Your task to perform on an android device: Go to Yahoo.com Image 0: 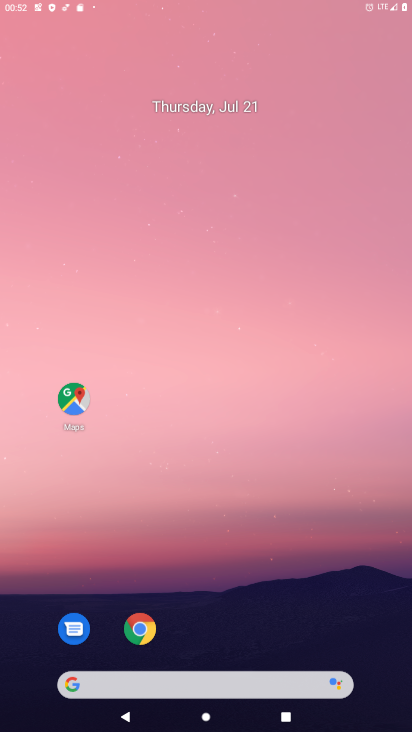
Step 0: click (263, 132)
Your task to perform on an android device: Go to Yahoo.com Image 1: 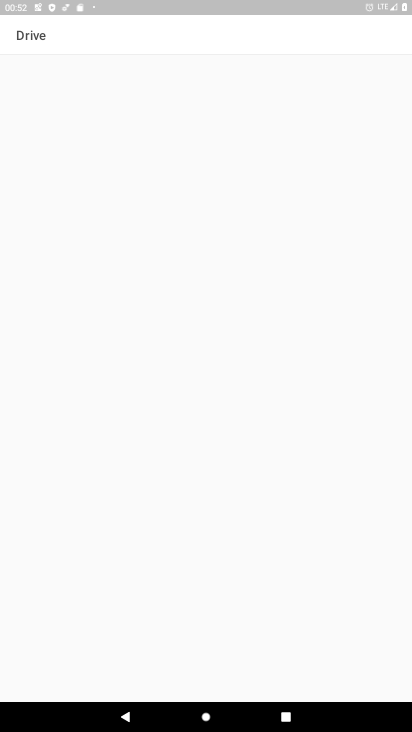
Step 1: press home button
Your task to perform on an android device: Go to Yahoo.com Image 2: 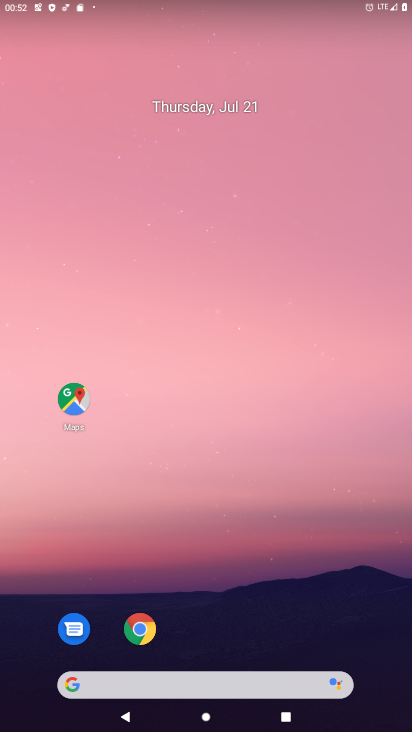
Step 2: drag from (311, 629) to (245, 42)
Your task to perform on an android device: Go to Yahoo.com Image 3: 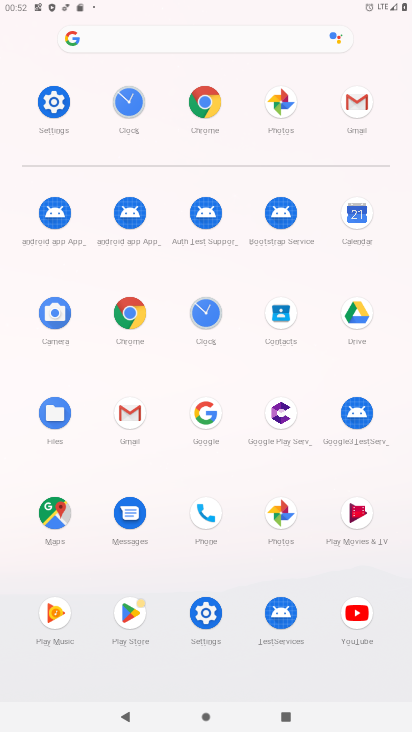
Step 3: click (127, 317)
Your task to perform on an android device: Go to Yahoo.com Image 4: 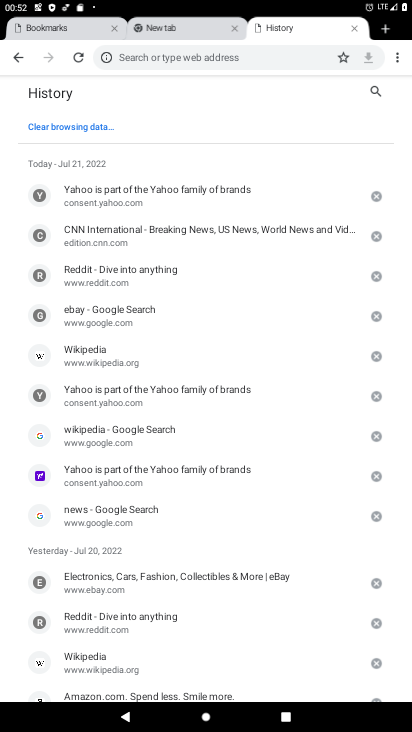
Step 4: click (136, 484)
Your task to perform on an android device: Go to Yahoo.com Image 5: 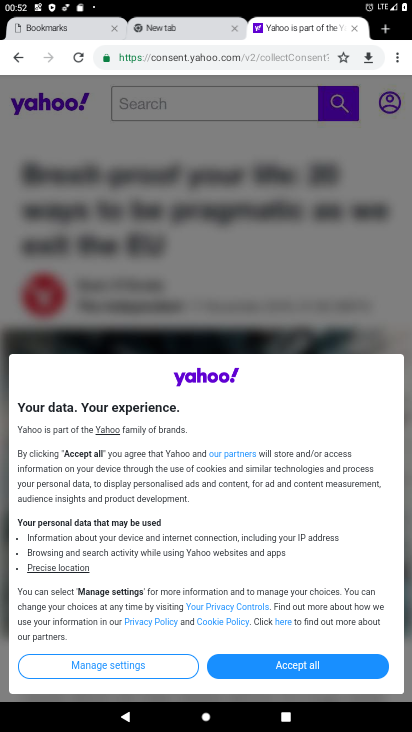
Step 5: task complete